Your task to perform on an android device: Open a new Chrome window Image 0: 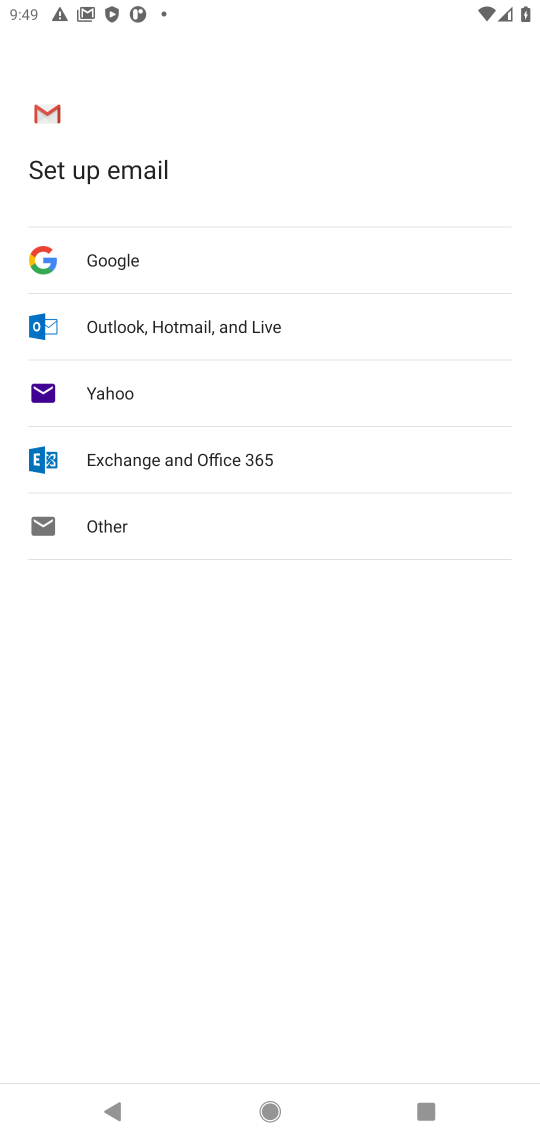
Step 0: click (277, 1114)
Your task to perform on an android device: Open a new Chrome window Image 1: 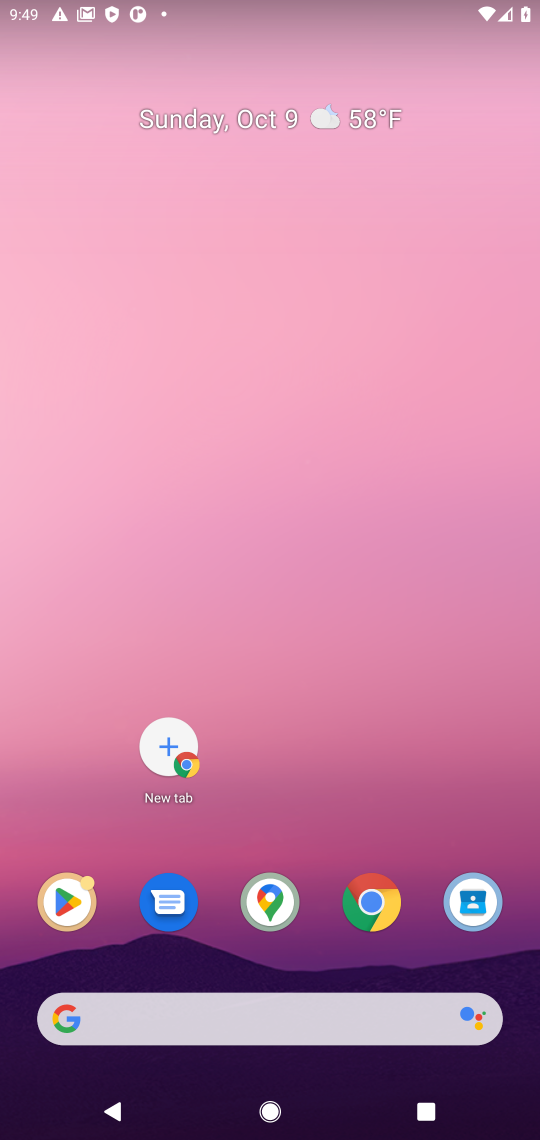
Step 1: click (374, 906)
Your task to perform on an android device: Open a new Chrome window Image 2: 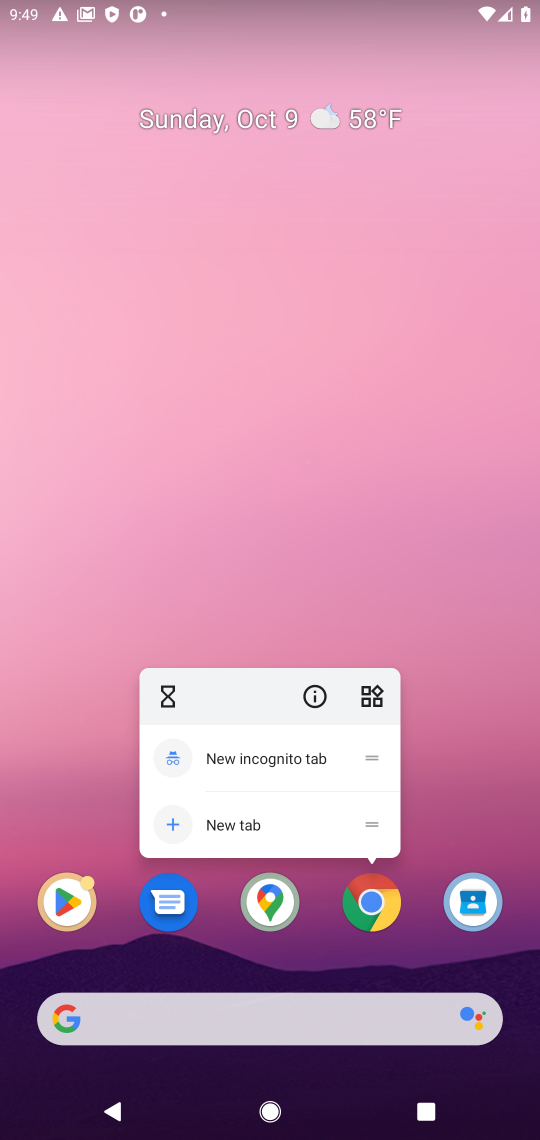
Step 2: click (374, 906)
Your task to perform on an android device: Open a new Chrome window Image 3: 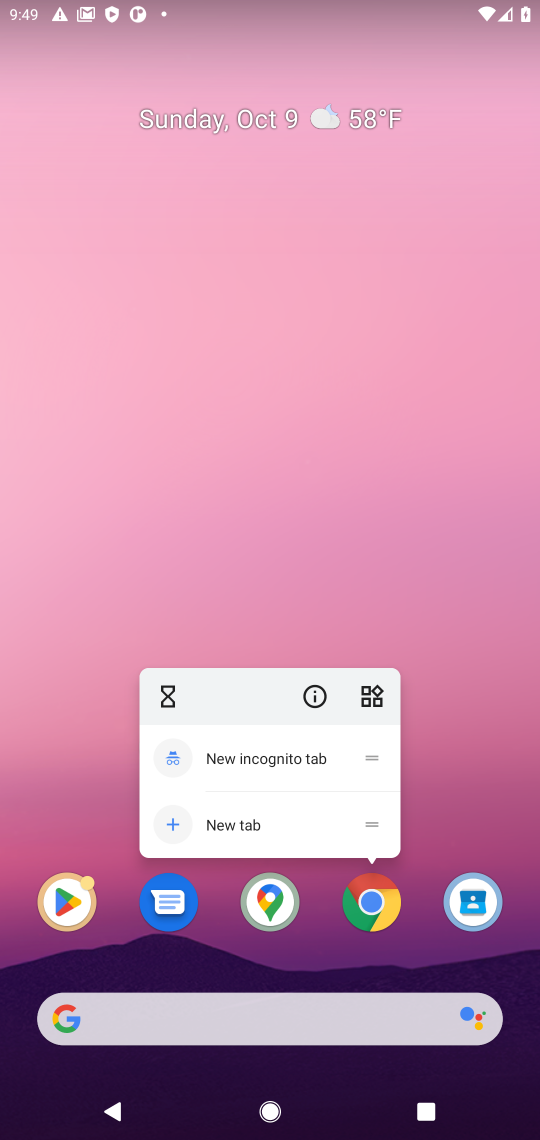
Step 3: click (399, 610)
Your task to perform on an android device: Open a new Chrome window Image 4: 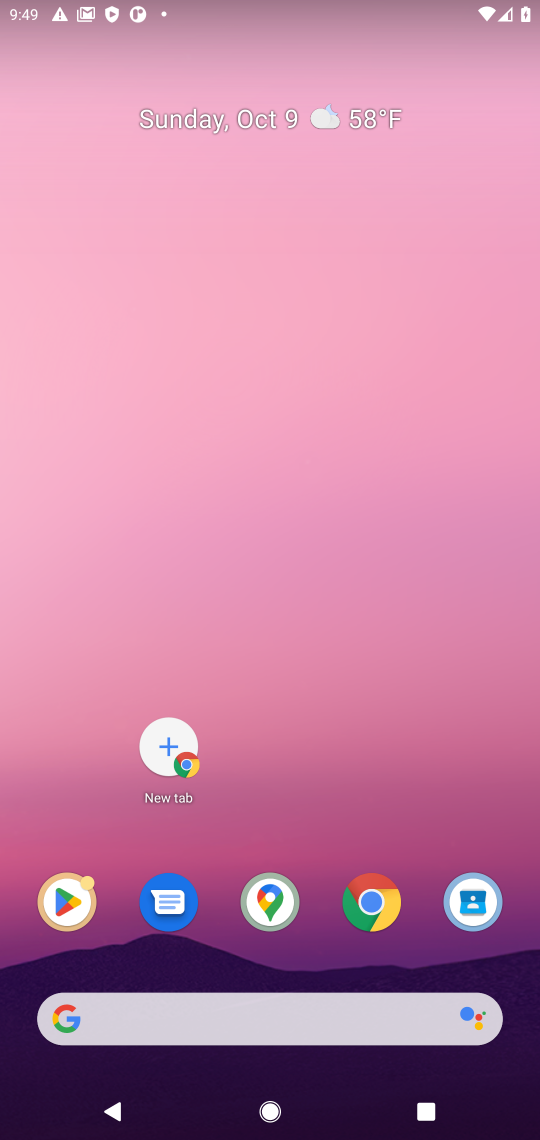
Step 4: click (379, 904)
Your task to perform on an android device: Open a new Chrome window Image 5: 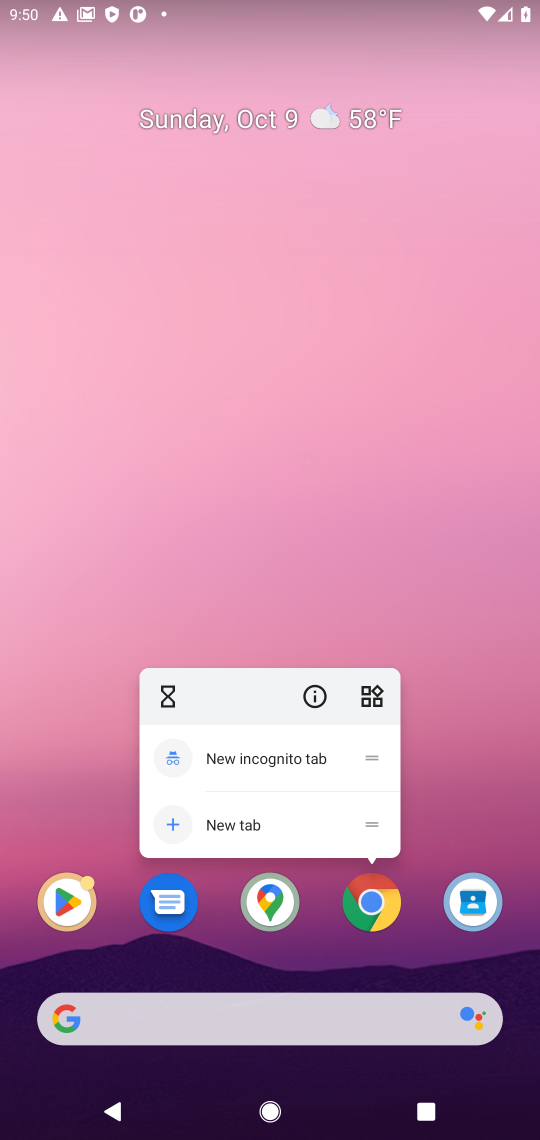
Step 5: click (417, 504)
Your task to perform on an android device: Open a new Chrome window Image 6: 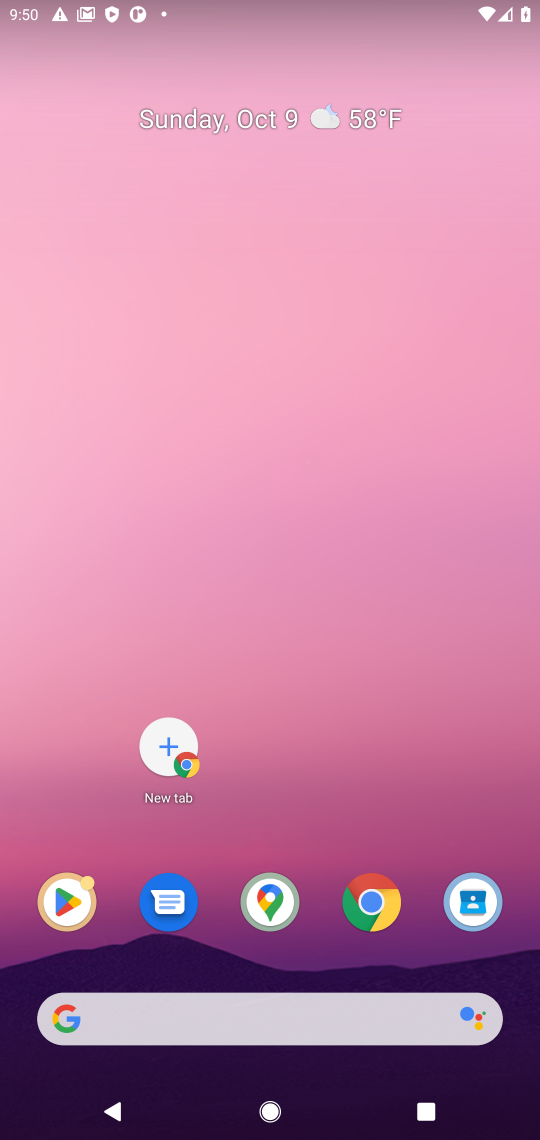
Step 6: click (369, 894)
Your task to perform on an android device: Open a new Chrome window Image 7: 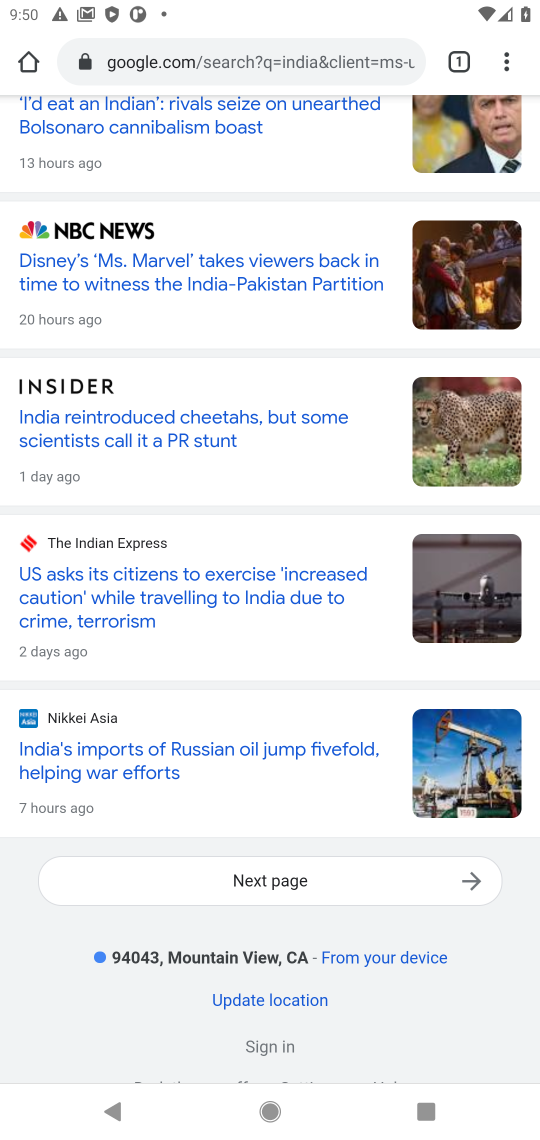
Step 7: click (510, 65)
Your task to perform on an android device: Open a new Chrome window Image 8: 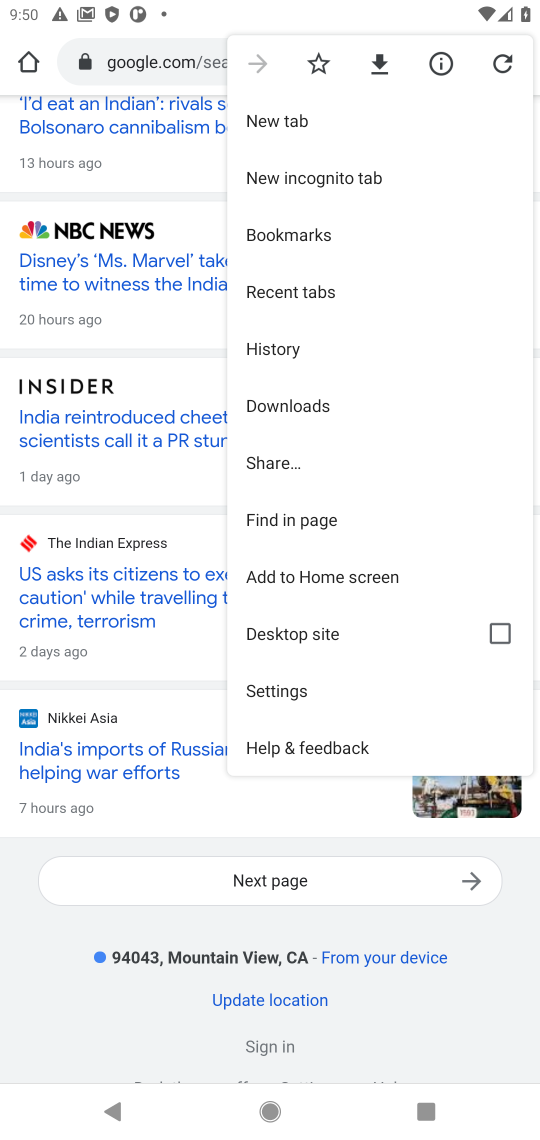
Step 8: click (287, 123)
Your task to perform on an android device: Open a new Chrome window Image 9: 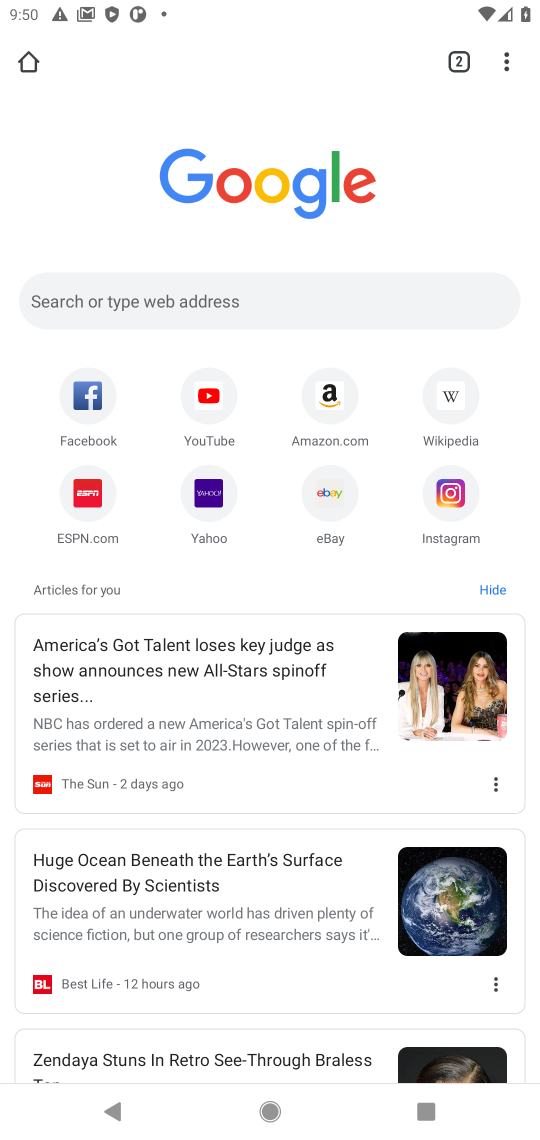
Step 9: click (263, 303)
Your task to perform on an android device: Open a new Chrome window Image 10: 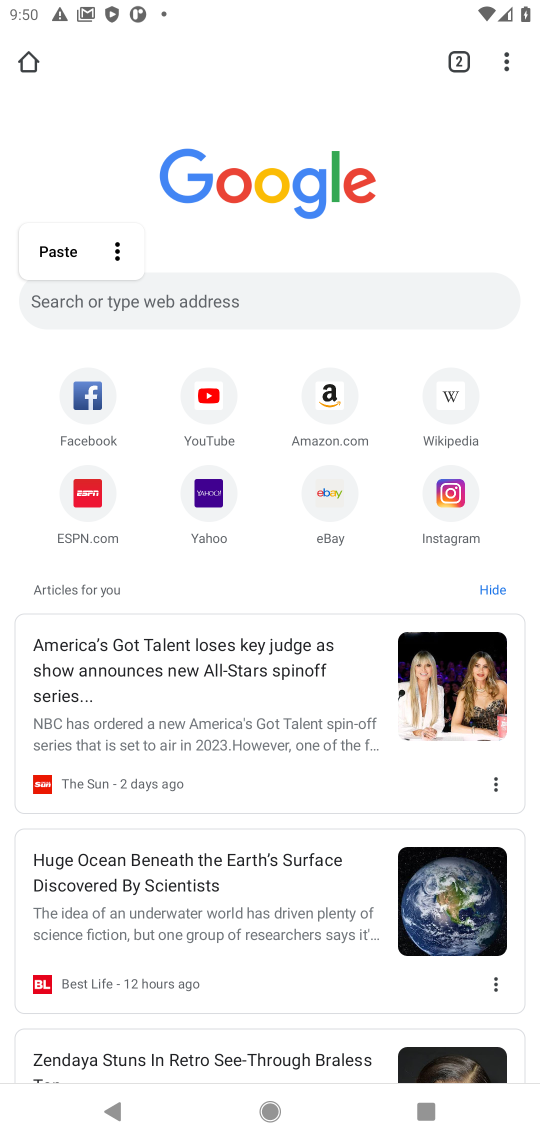
Step 10: task complete